Your task to perform on an android device: Open the map Image 0: 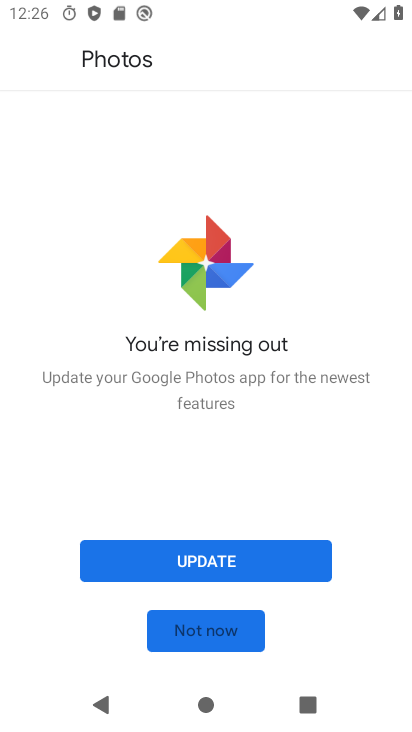
Step 0: press home button
Your task to perform on an android device: Open the map Image 1: 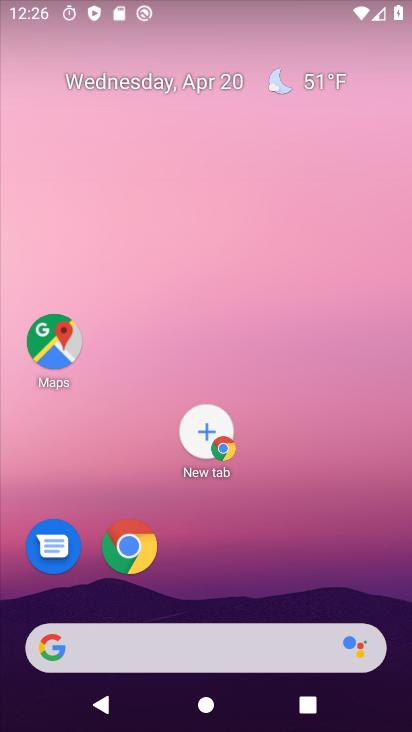
Step 1: click (57, 333)
Your task to perform on an android device: Open the map Image 2: 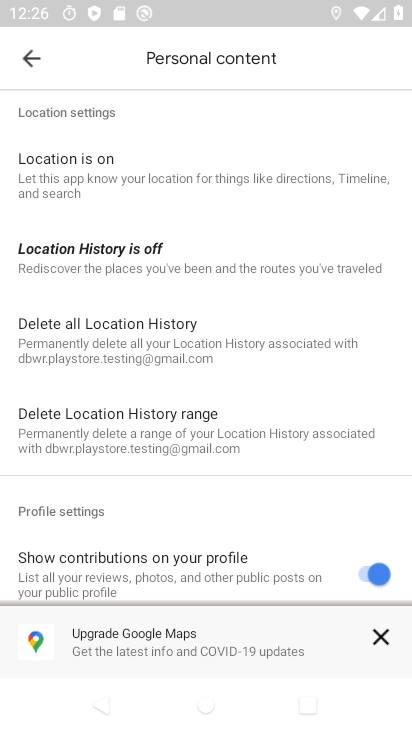
Step 2: click (11, 56)
Your task to perform on an android device: Open the map Image 3: 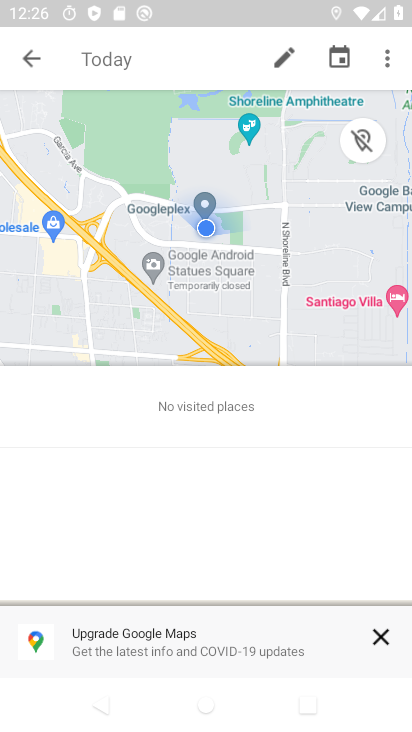
Step 3: task complete